Your task to perform on an android device: star an email in the gmail app Image 0: 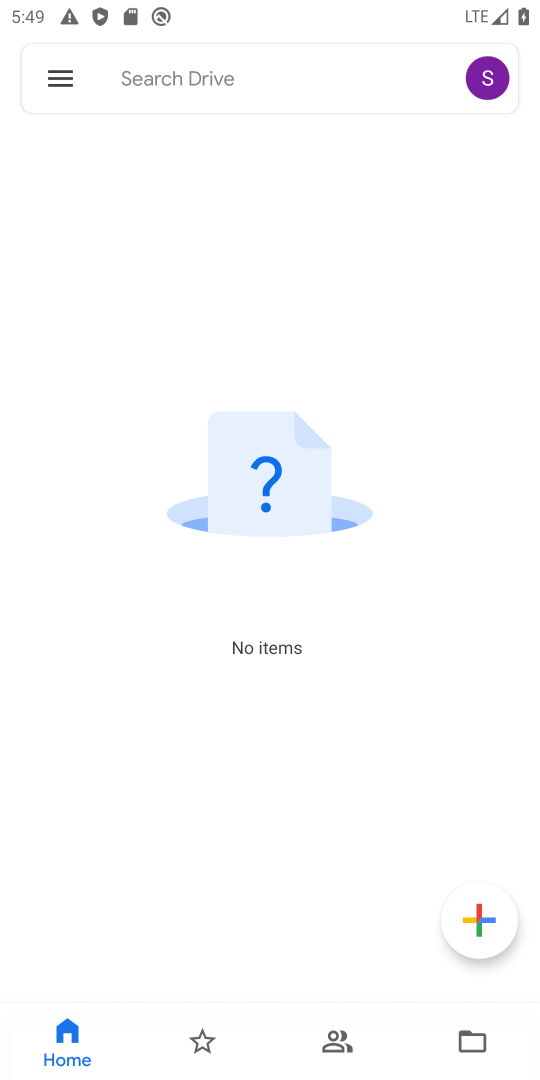
Step 0: press back button
Your task to perform on an android device: star an email in the gmail app Image 1: 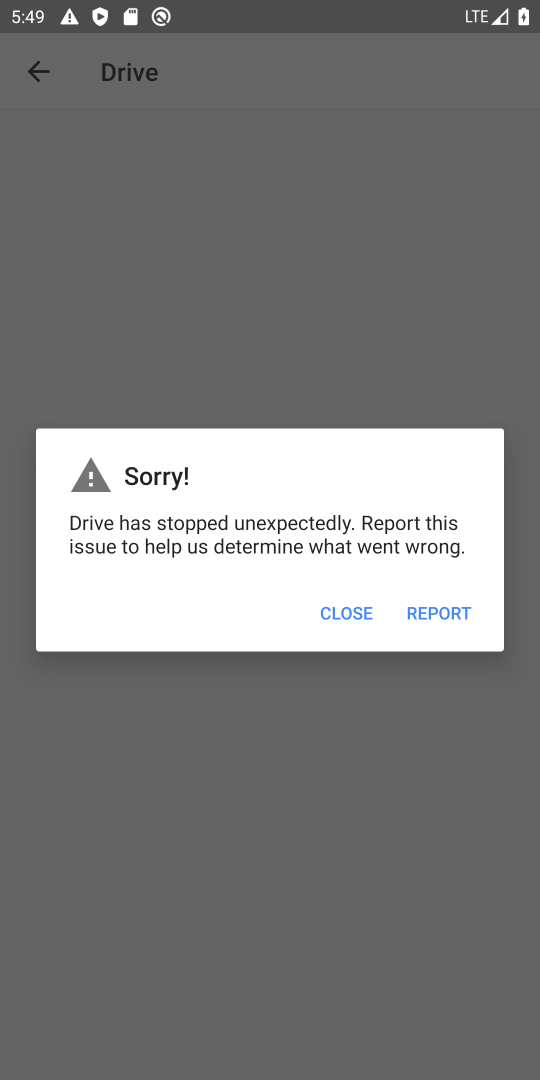
Step 1: press back button
Your task to perform on an android device: star an email in the gmail app Image 2: 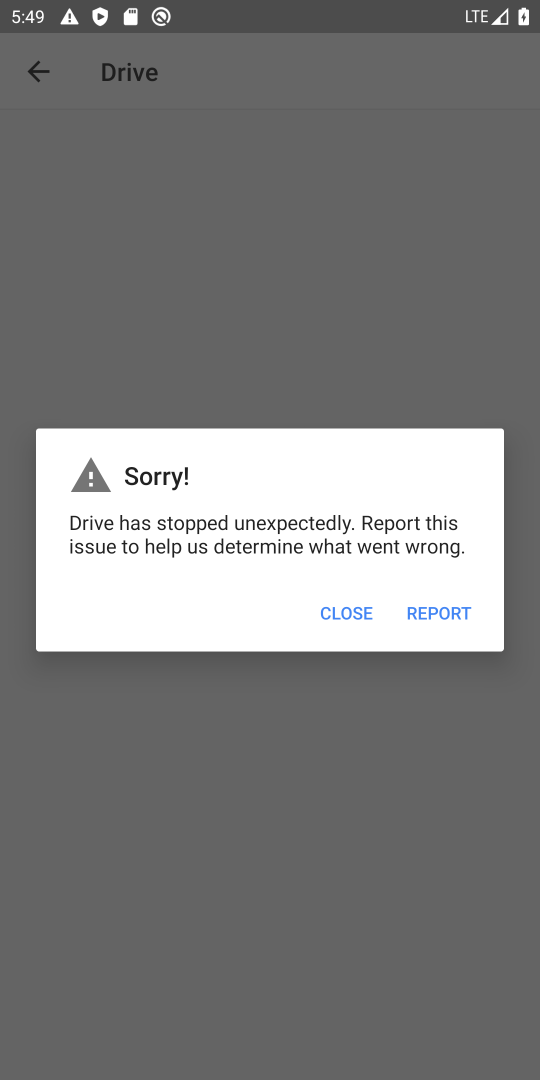
Step 2: click (339, 610)
Your task to perform on an android device: star an email in the gmail app Image 3: 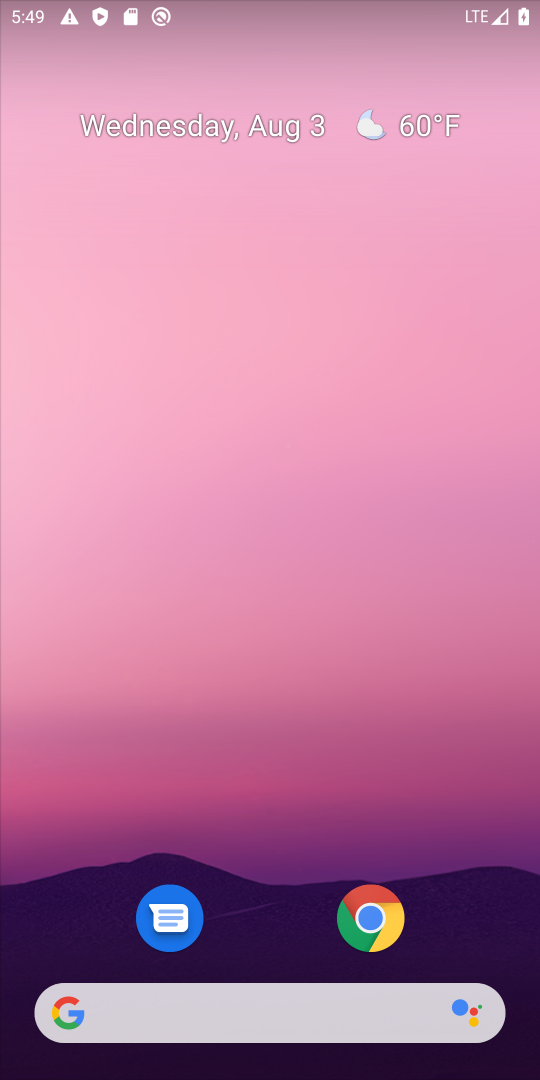
Step 3: drag from (213, 1015) to (333, 304)
Your task to perform on an android device: star an email in the gmail app Image 4: 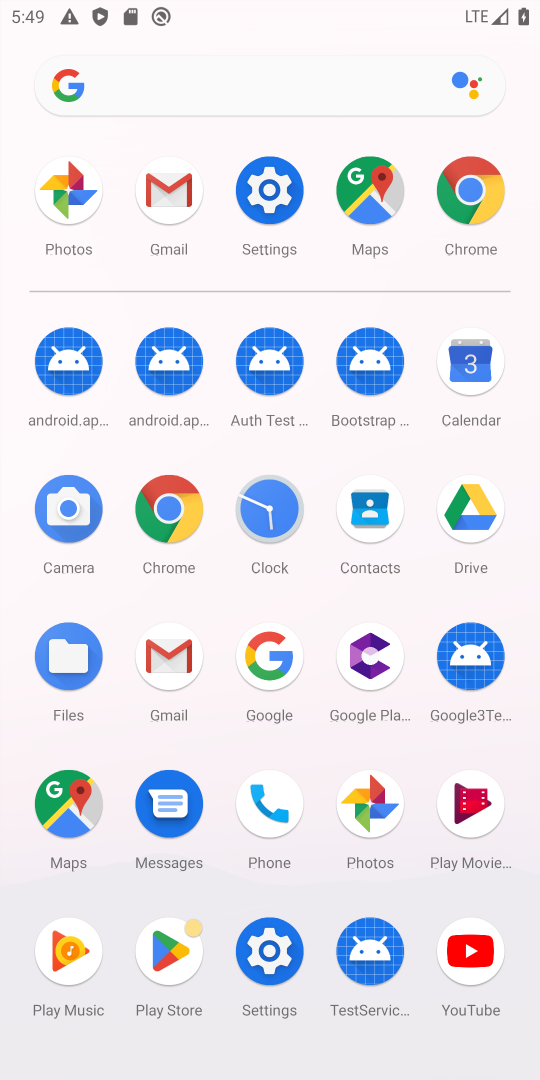
Step 4: click (179, 661)
Your task to perform on an android device: star an email in the gmail app Image 5: 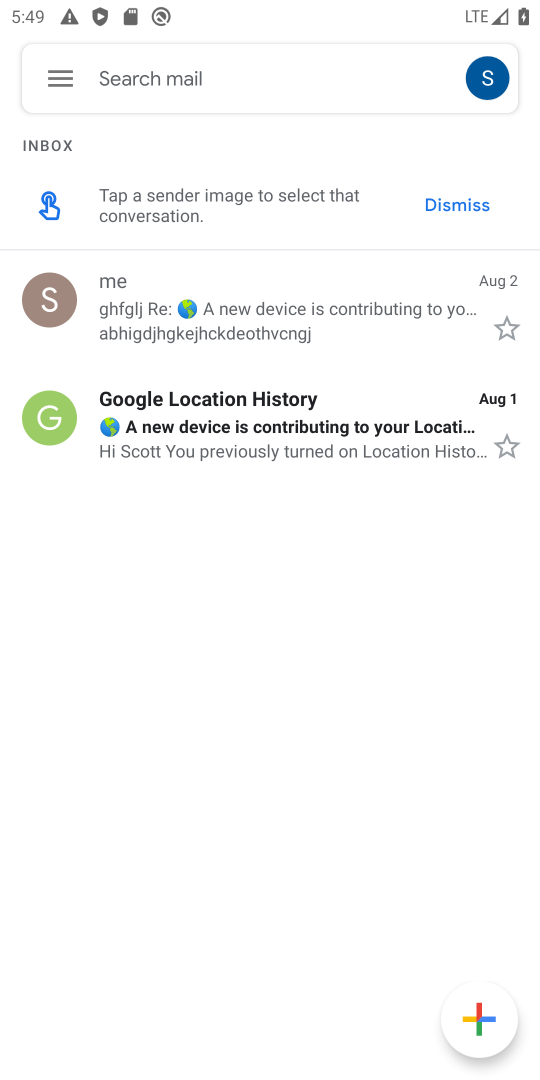
Step 5: click (498, 331)
Your task to perform on an android device: star an email in the gmail app Image 6: 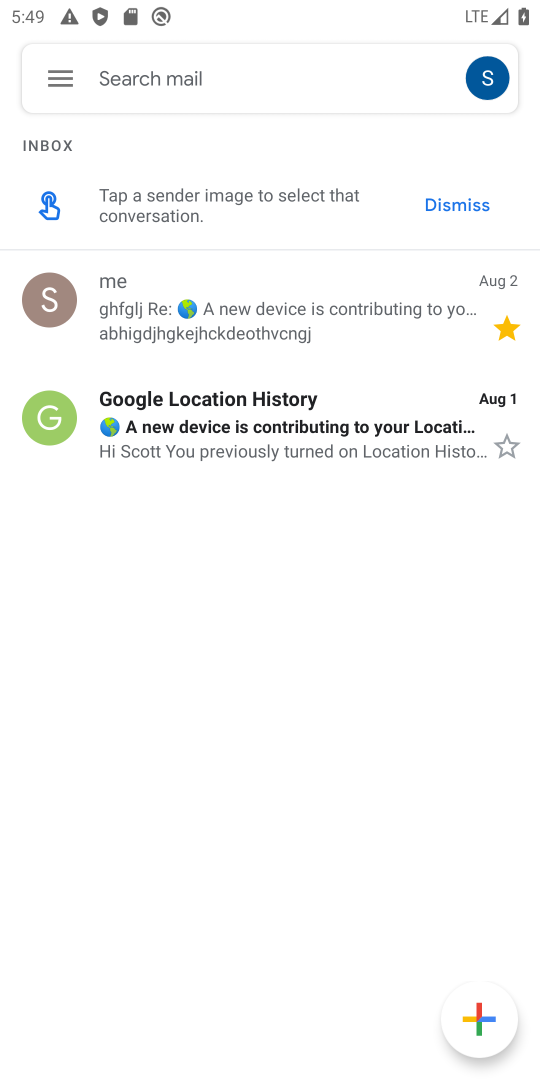
Step 6: task complete